Your task to perform on an android device: Go to display settings Image 0: 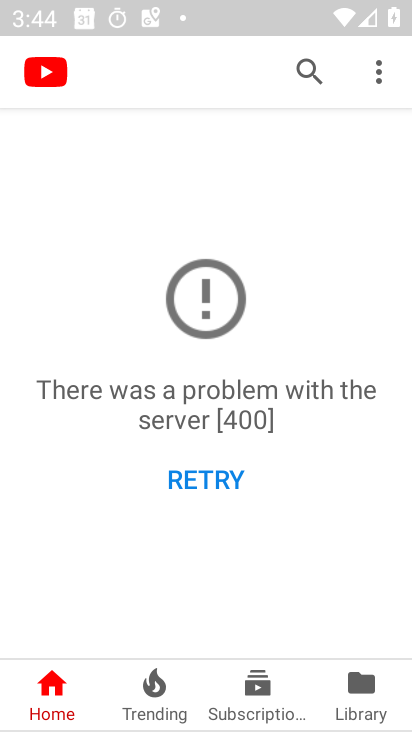
Step 0: press home button
Your task to perform on an android device: Go to display settings Image 1: 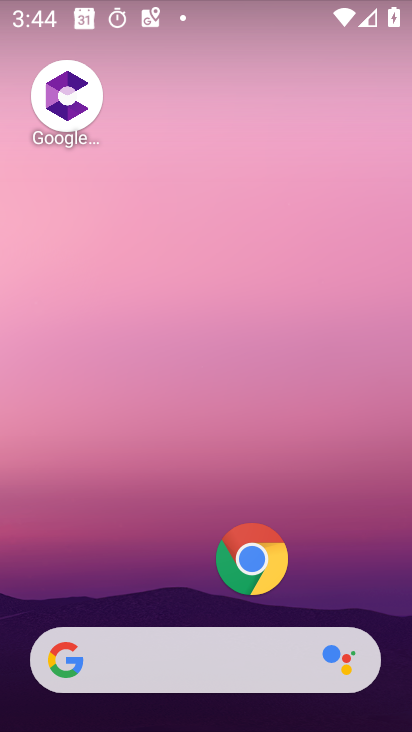
Step 1: drag from (135, 614) to (121, 145)
Your task to perform on an android device: Go to display settings Image 2: 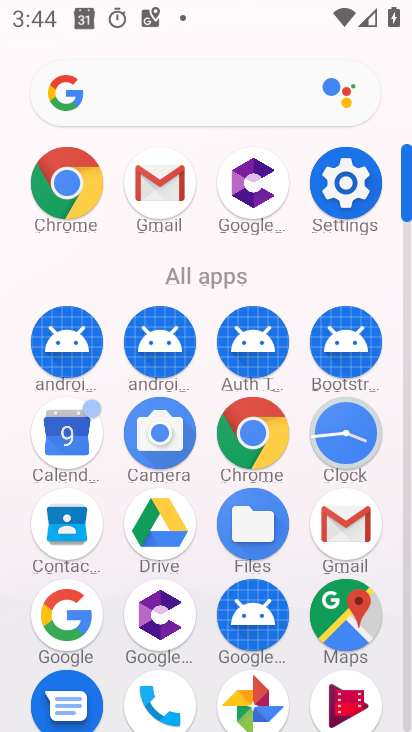
Step 2: click (340, 180)
Your task to perform on an android device: Go to display settings Image 3: 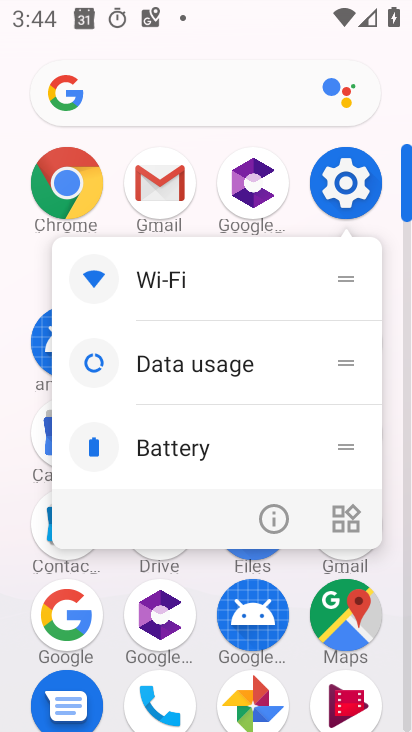
Step 3: click (350, 189)
Your task to perform on an android device: Go to display settings Image 4: 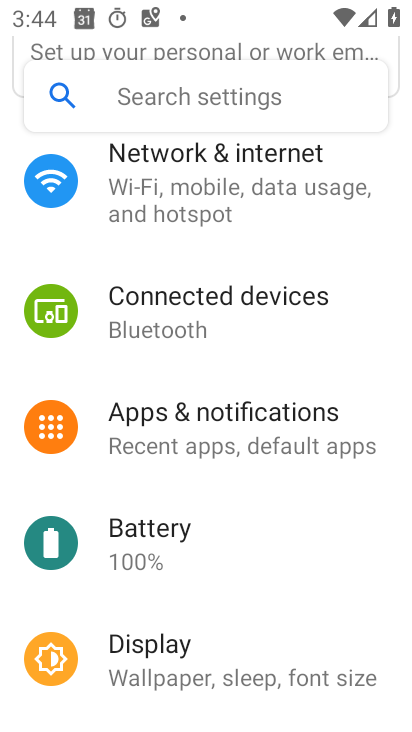
Step 4: click (161, 664)
Your task to perform on an android device: Go to display settings Image 5: 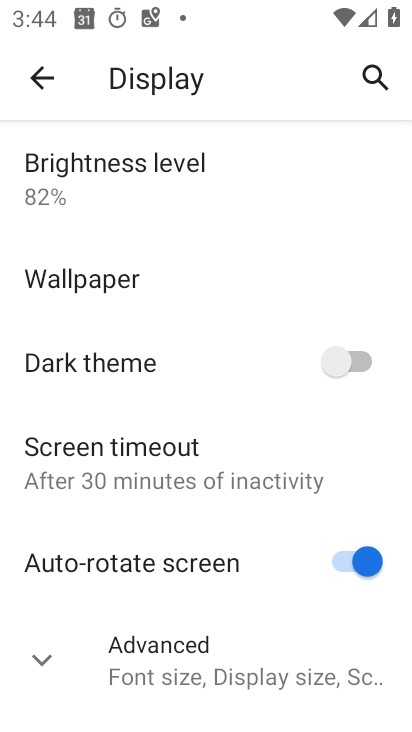
Step 5: task complete